Your task to perform on an android device: open sync settings in chrome Image 0: 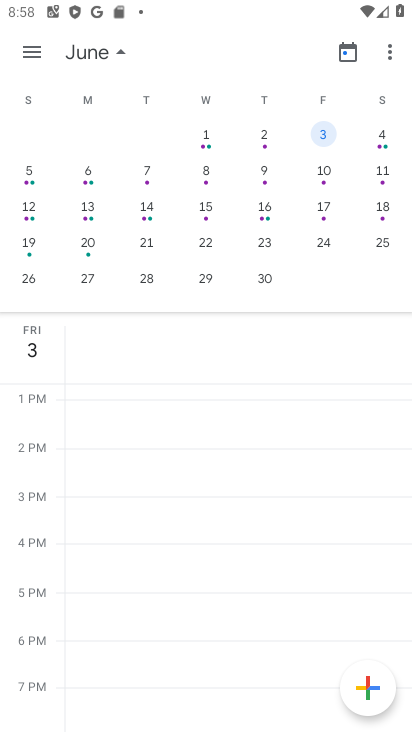
Step 0: press home button
Your task to perform on an android device: open sync settings in chrome Image 1: 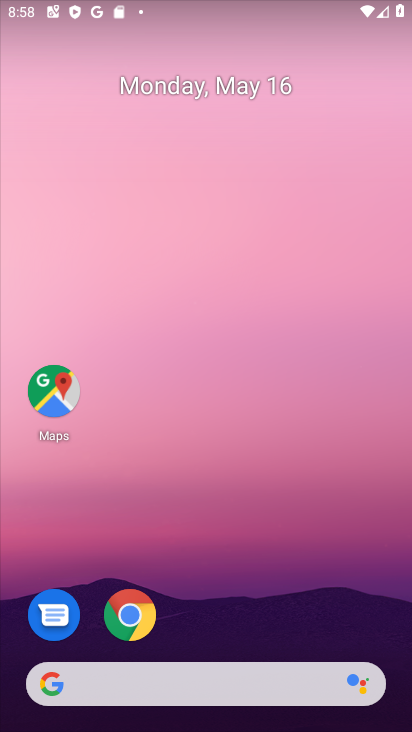
Step 1: click (115, 611)
Your task to perform on an android device: open sync settings in chrome Image 2: 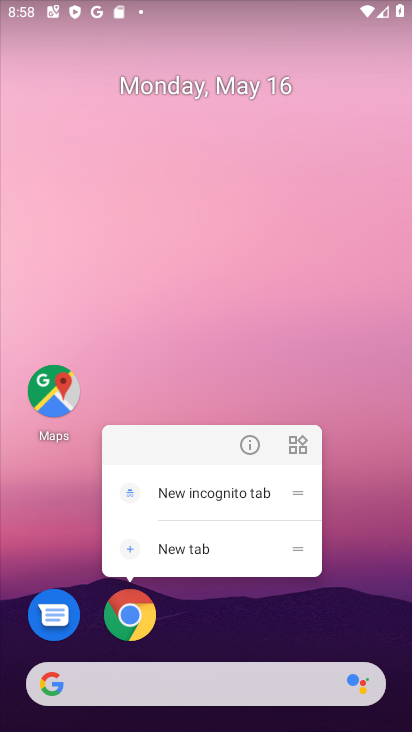
Step 2: click (264, 297)
Your task to perform on an android device: open sync settings in chrome Image 3: 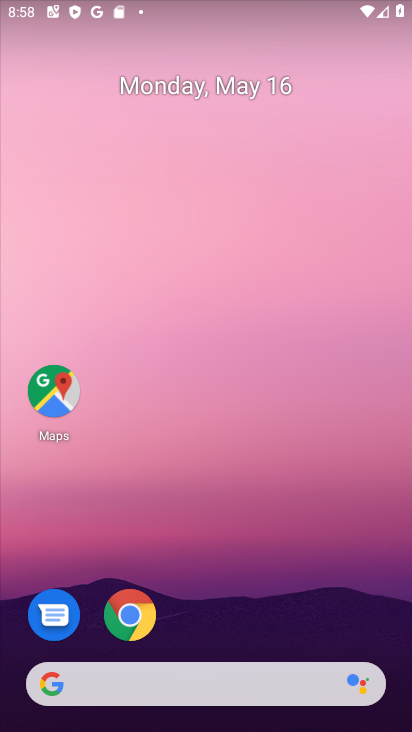
Step 3: click (127, 609)
Your task to perform on an android device: open sync settings in chrome Image 4: 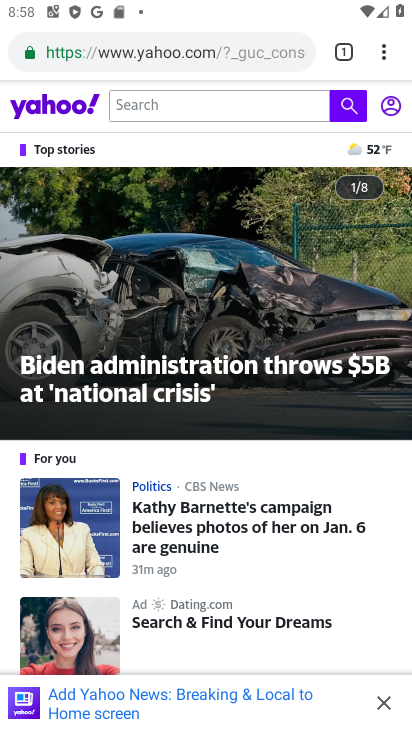
Step 4: click (384, 49)
Your task to perform on an android device: open sync settings in chrome Image 5: 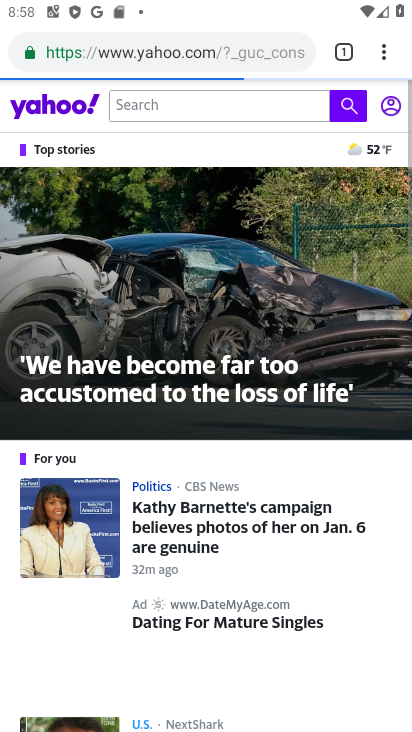
Step 5: click (396, 47)
Your task to perform on an android device: open sync settings in chrome Image 6: 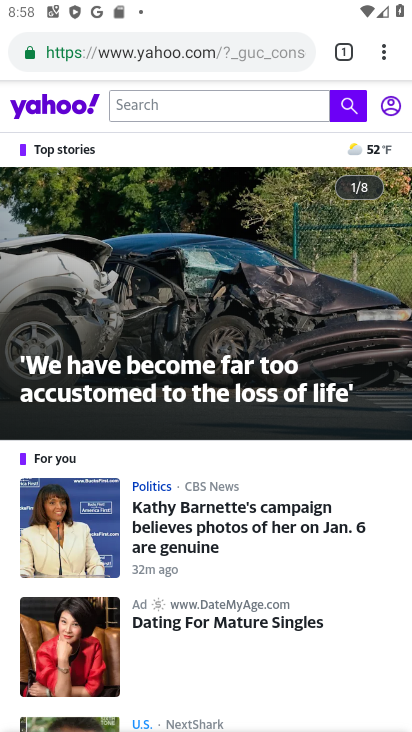
Step 6: click (396, 47)
Your task to perform on an android device: open sync settings in chrome Image 7: 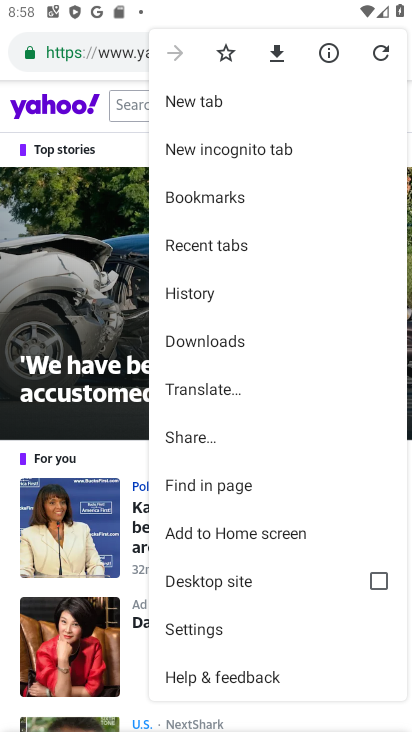
Step 7: click (214, 628)
Your task to perform on an android device: open sync settings in chrome Image 8: 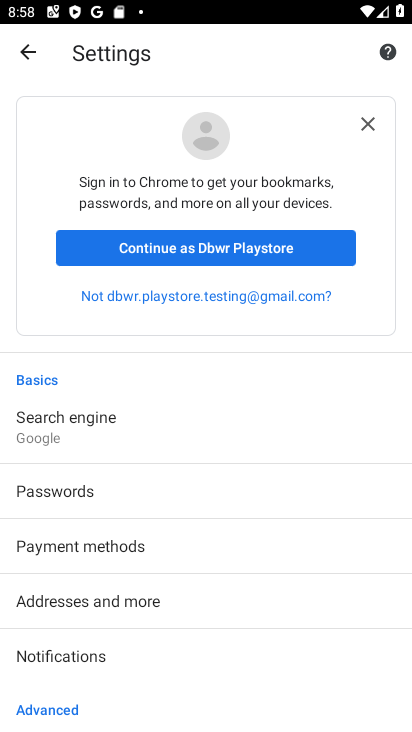
Step 8: drag from (114, 621) to (165, 189)
Your task to perform on an android device: open sync settings in chrome Image 9: 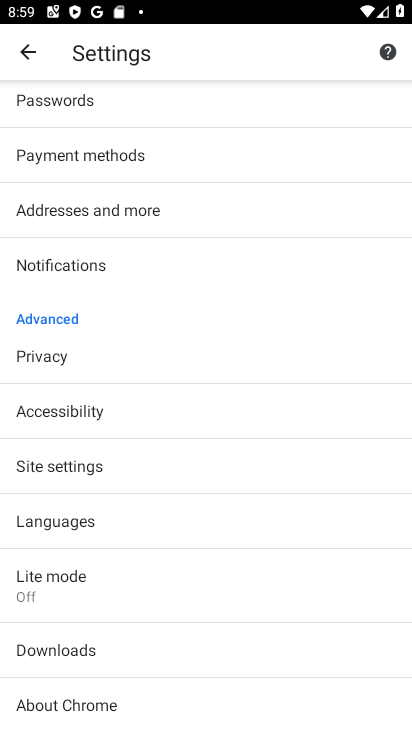
Step 9: drag from (113, 692) to (256, 216)
Your task to perform on an android device: open sync settings in chrome Image 10: 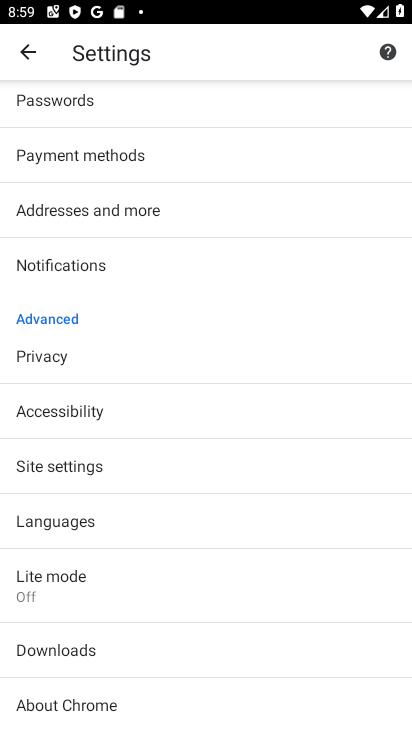
Step 10: click (100, 464)
Your task to perform on an android device: open sync settings in chrome Image 11: 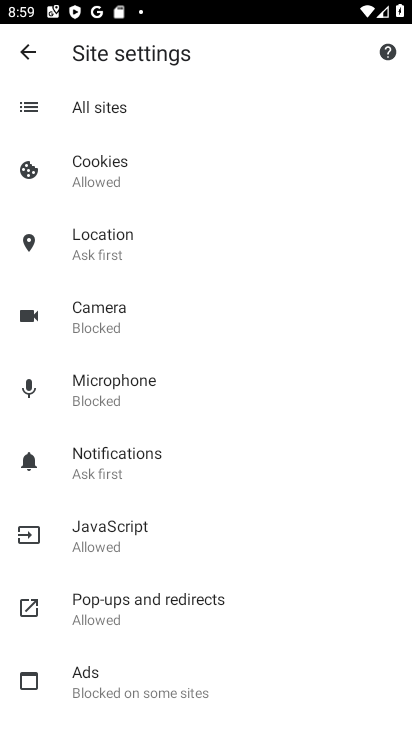
Step 11: drag from (115, 428) to (249, 115)
Your task to perform on an android device: open sync settings in chrome Image 12: 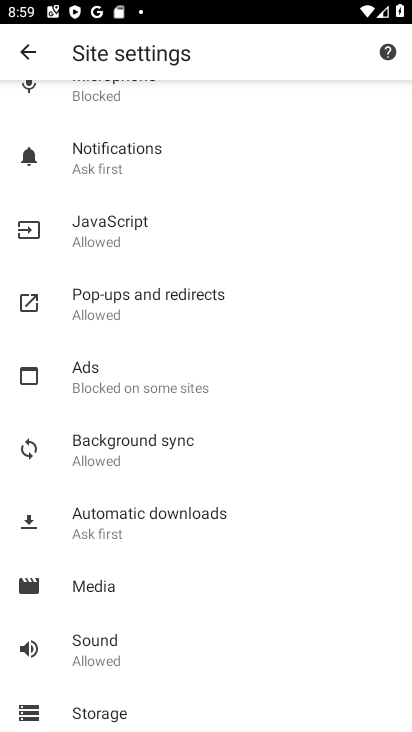
Step 12: click (154, 438)
Your task to perform on an android device: open sync settings in chrome Image 13: 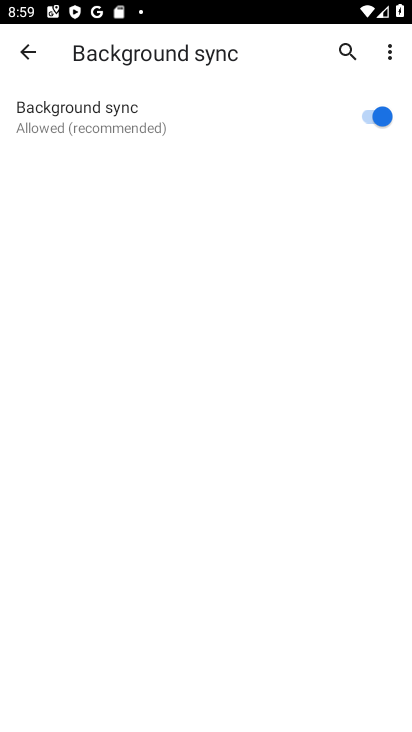
Step 13: task complete